Your task to perform on an android device: change notifications settings Image 0: 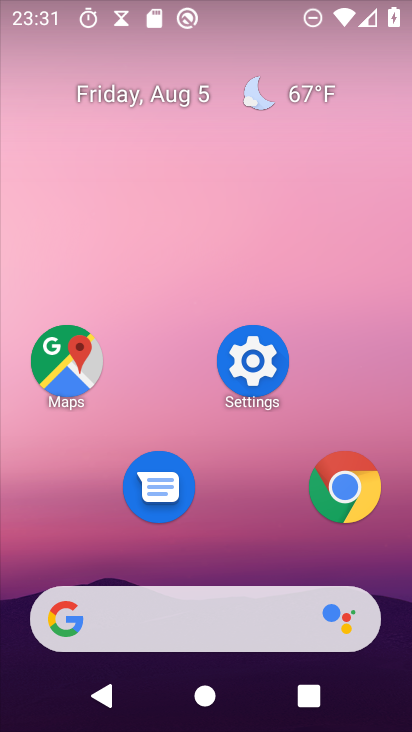
Step 0: click (245, 362)
Your task to perform on an android device: change notifications settings Image 1: 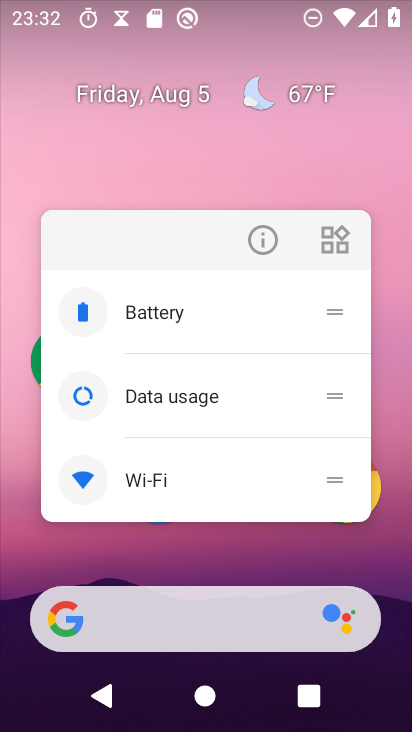
Step 1: click (356, 164)
Your task to perform on an android device: change notifications settings Image 2: 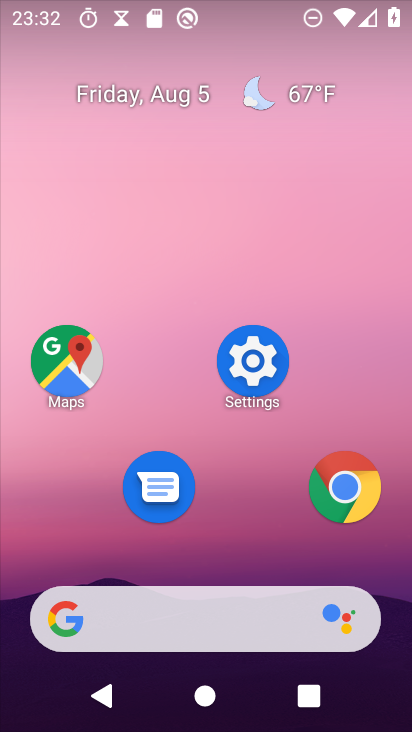
Step 2: click (247, 359)
Your task to perform on an android device: change notifications settings Image 3: 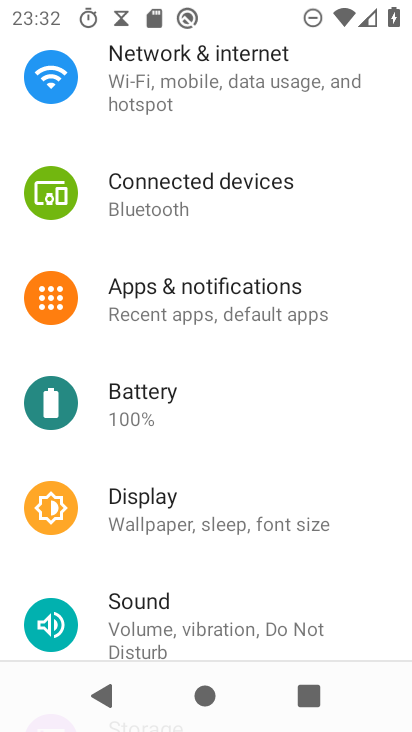
Step 3: click (231, 283)
Your task to perform on an android device: change notifications settings Image 4: 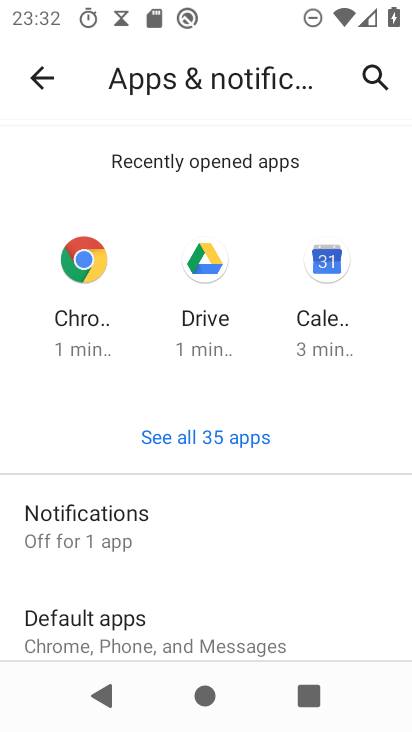
Step 4: click (123, 532)
Your task to perform on an android device: change notifications settings Image 5: 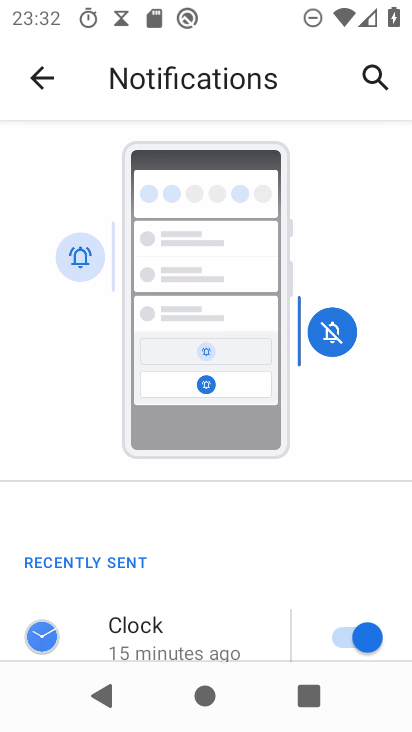
Step 5: drag from (212, 582) to (285, 103)
Your task to perform on an android device: change notifications settings Image 6: 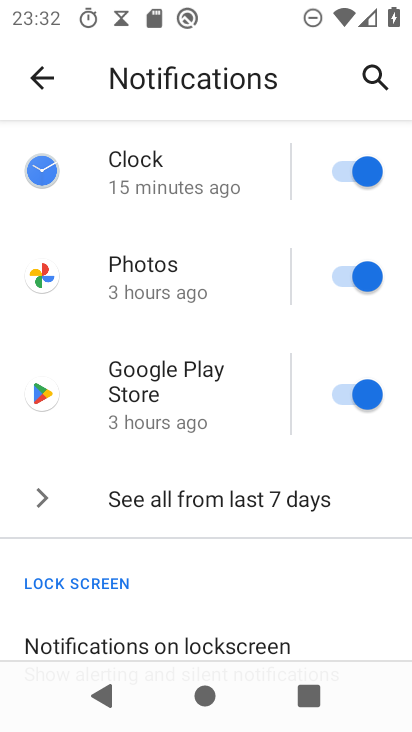
Step 6: click (340, 277)
Your task to perform on an android device: change notifications settings Image 7: 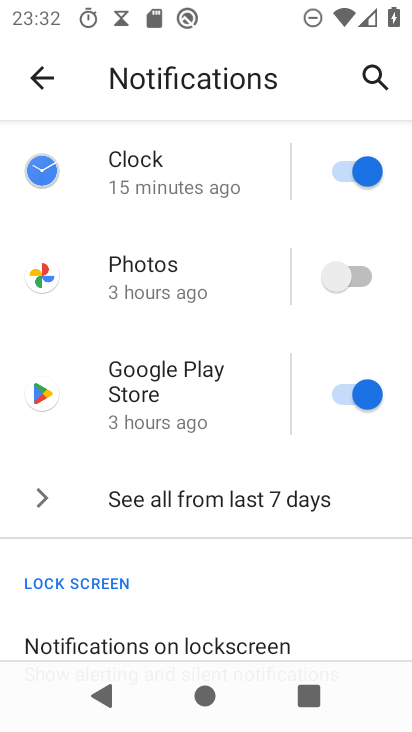
Step 7: task complete